Your task to perform on an android device: Go to Wikipedia Image 0: 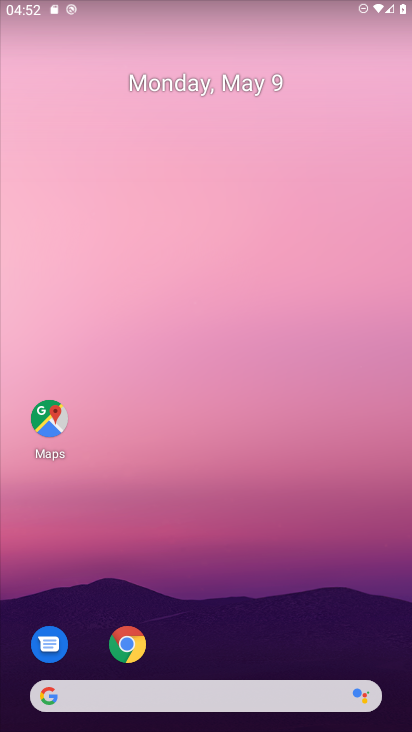
Step 0: click (127, 643)
Your task to perform on an android device: Go to Wikipedia Image 1: 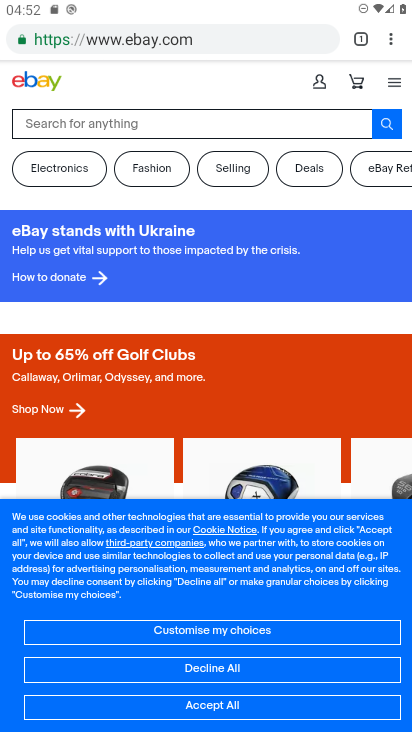
Step 1: click (277, 37)
Your task to perform on an android device: Go to Wikipedia Image 2: 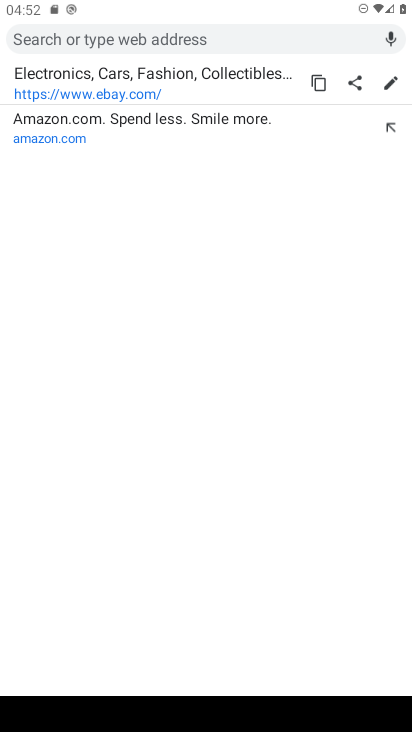
Step 2: type "Wikipedia"
Your task to perform on an android device: Go to Wikipedia Image 3: 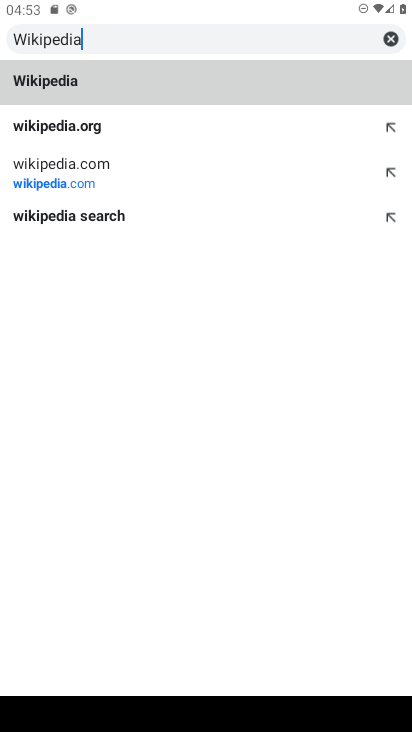
Step 3: click (47, 75)
Your task to perform on an android device: Go to Wikipedia Image 4: 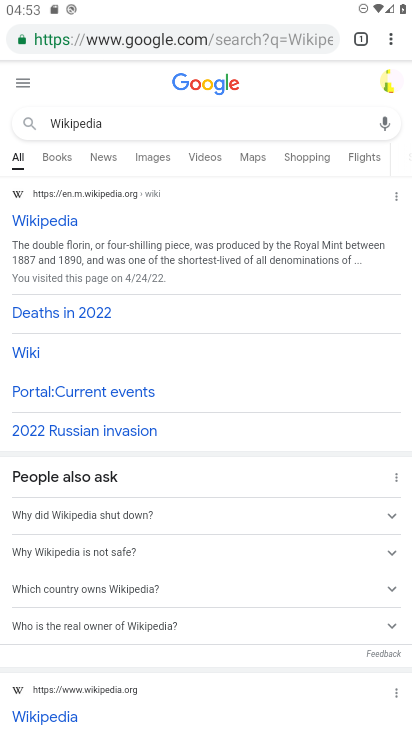
Step 4: click (75, 225)
Your task to perform on an android device: Go to Wikipedia Image 5: 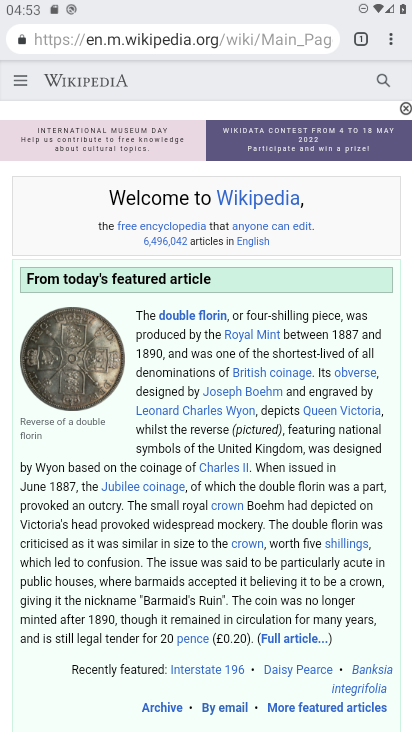
Step 5: task complete